Your task to perform on an android device: Show me popular games on the Play Store Image 0: 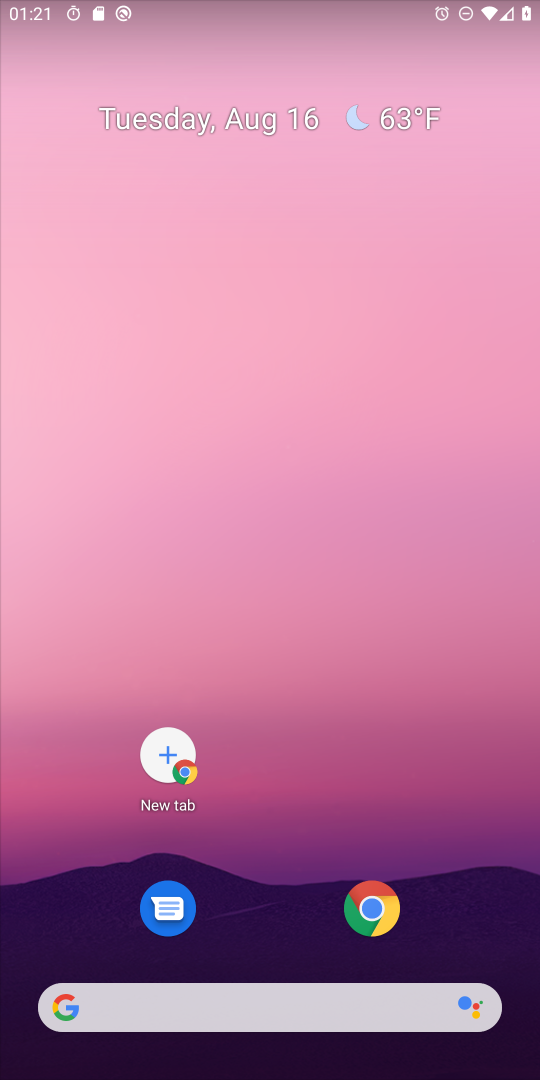
Step 0: drag from (203, 940) to (297, 370)
Your task to perform on an android device: Show me popular games on the Play Store Image 1: 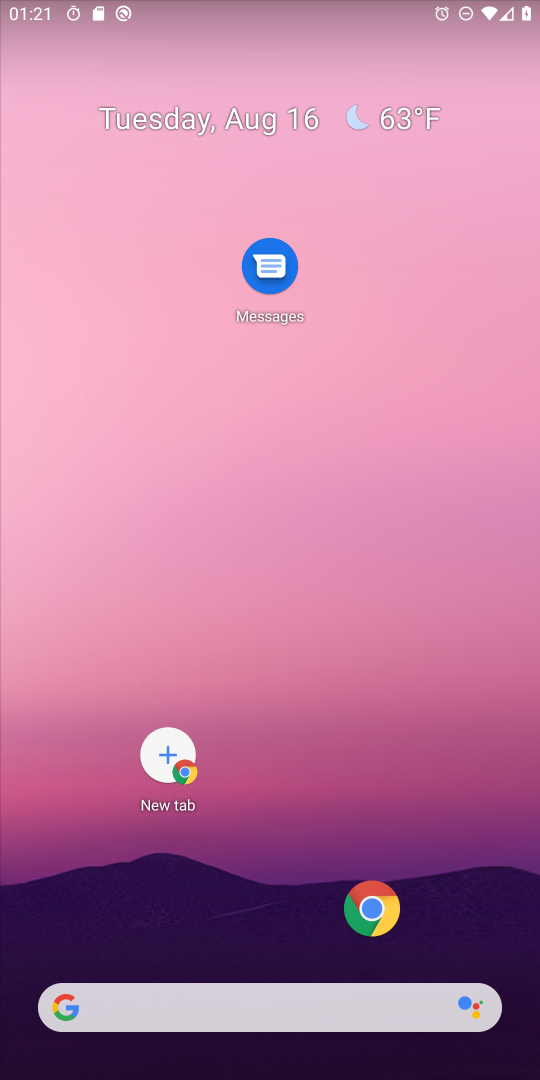
Step 1: drag from (307, 878) to (399, 77)
Your task to perform on an android device: Show me popular games on the Play Store Image 2: 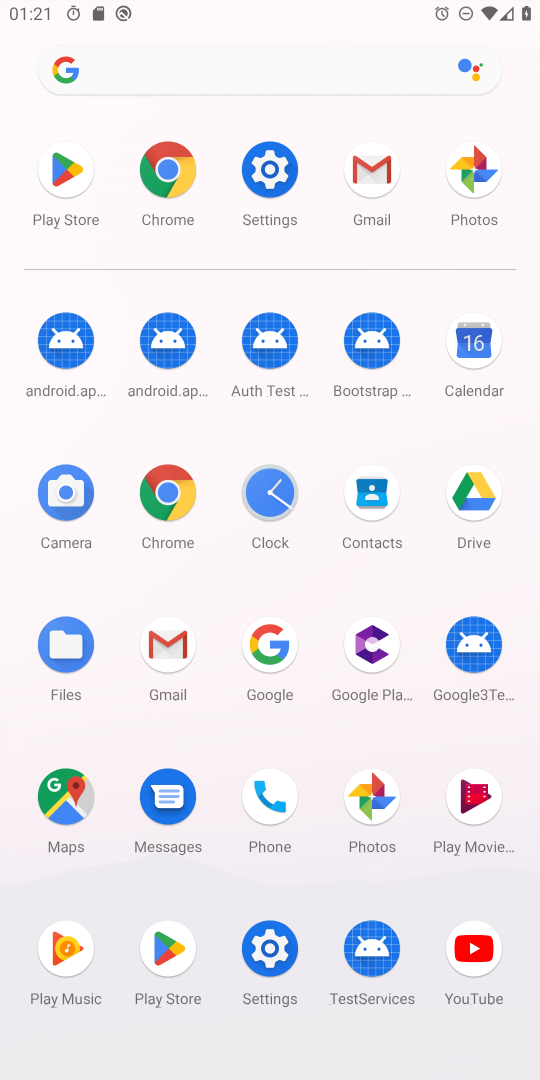
Step 2: click (160, 942)
Your task to perform on an android device: Show me popular games on the Play Store Image 3: 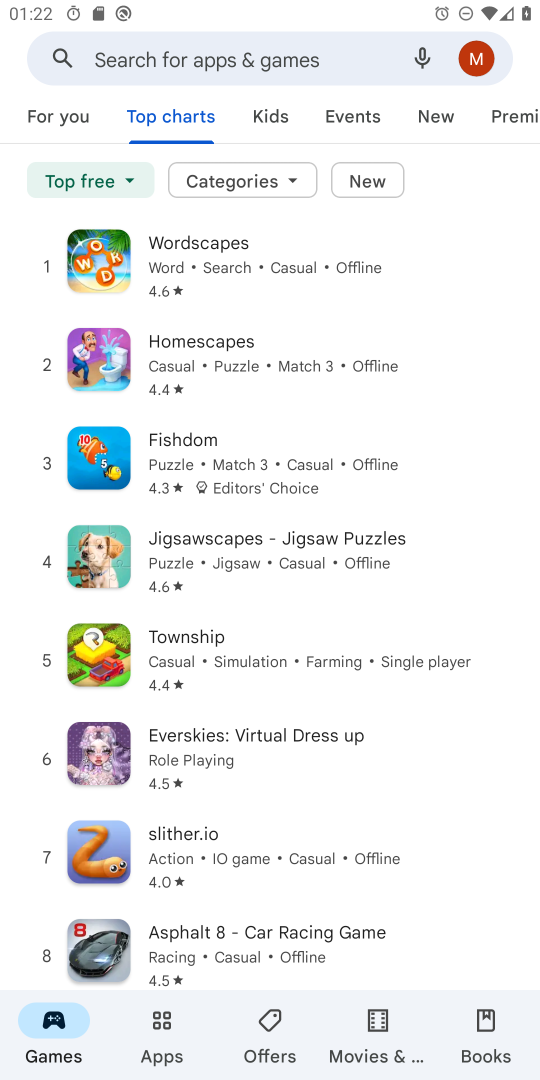
Step 3: task complete